Your task to perform on an android device: Go to battery settings Image 0: 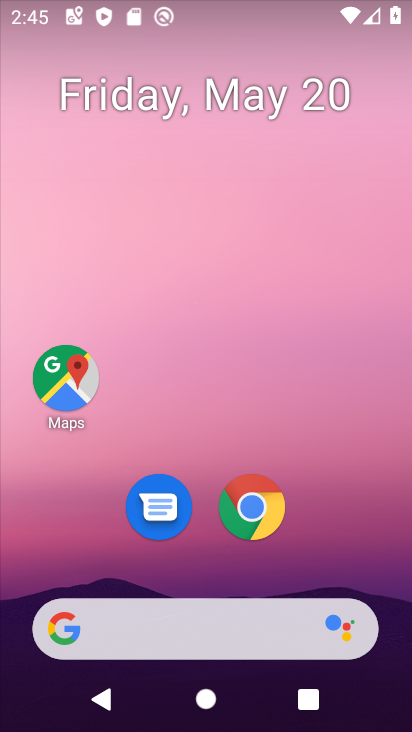
Step 0: drag from (166, 718) to (165, 44)
Your task to perform on an android device: Go to battery settings Image 1: 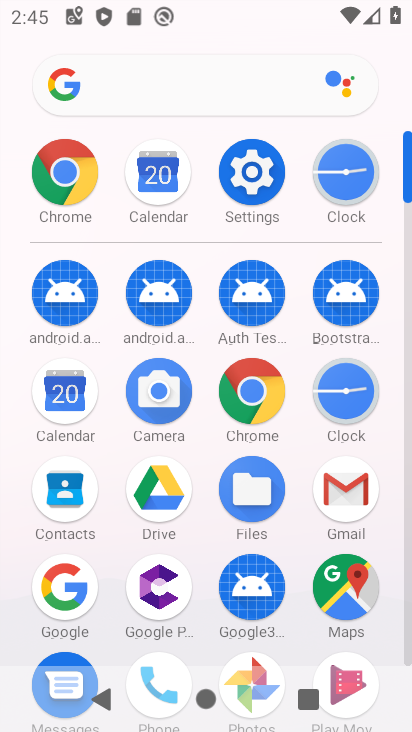
Step 1: click (261, 169)
Your task to perform on an android device: Go to battery settings Image 2: 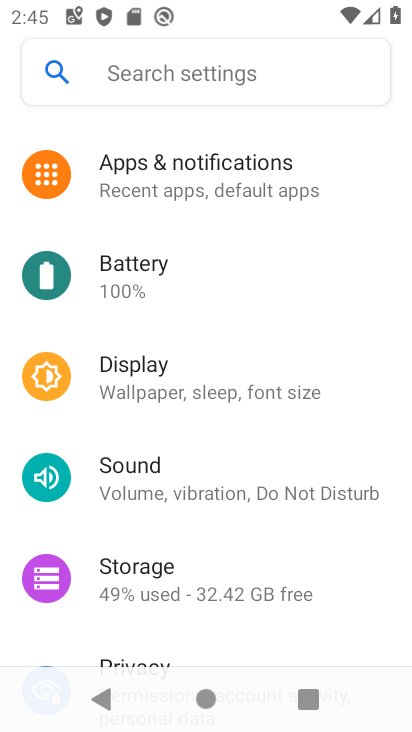
Step 2: click (132, 276)
Your task to perform on an android device: Go to battery settings Image 3: 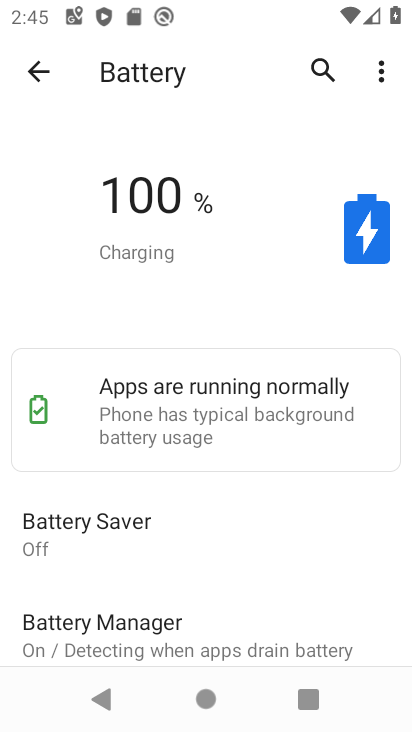
Step 3: click (230, 535)
Your task to perform on an android device: Go to battery settings Image 4: 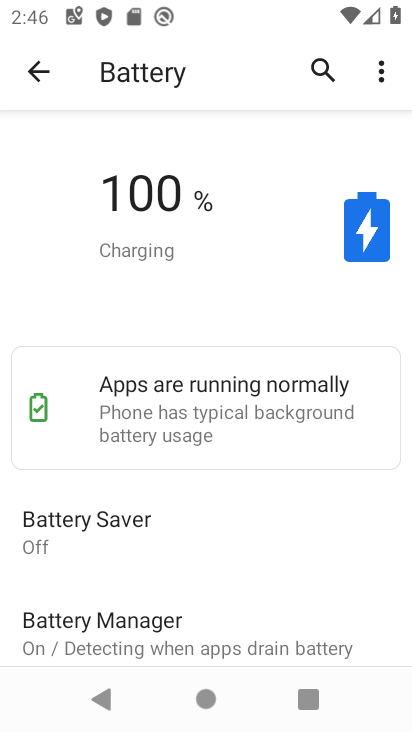
Step 4: task complete